Your task to perform on an android device: Open privacy settings Image 0: 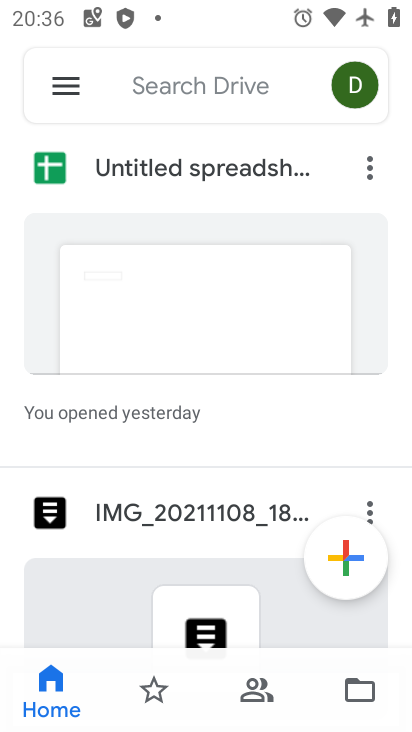
Step 0: press home button
Your task to perform on an android device: Open privacy settings Image 1: 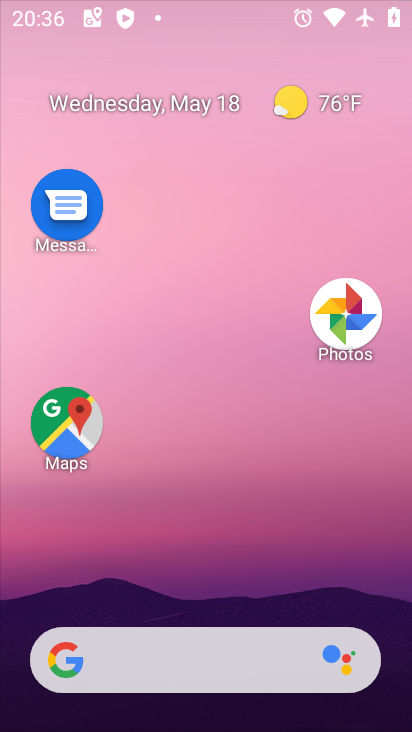
Step 1: drag from (227, 611) to (149, 39)
Your task to perform on an android device: Open privacy settings Image 2: 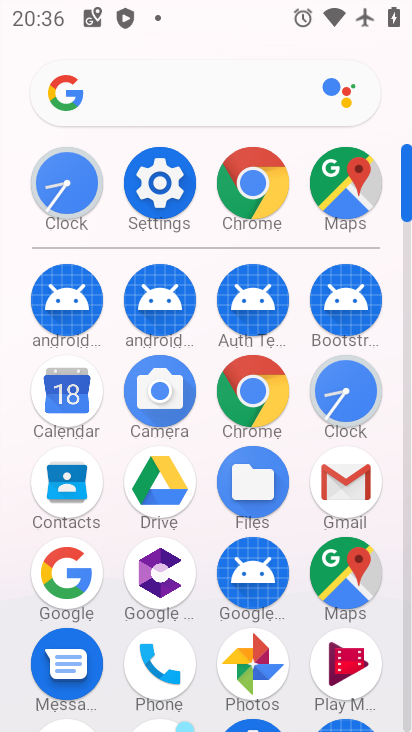
Step 2: click (165, 199)
Your task to perform on an android device: Open privacy settings Image 3: 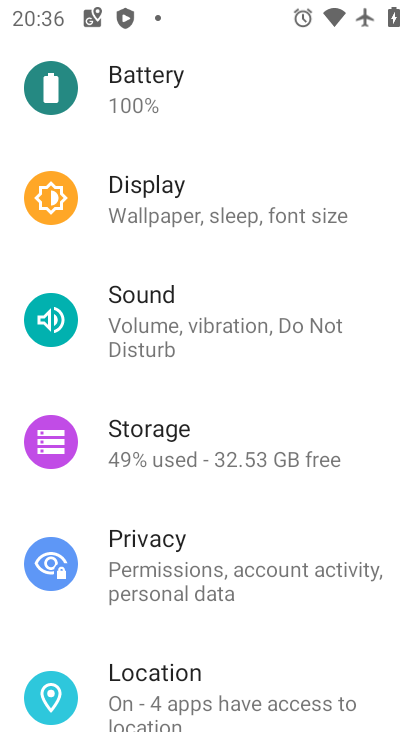
Step 3: click (181, 593)
Your task to perform on an android device: Open privacy settings Image 4: 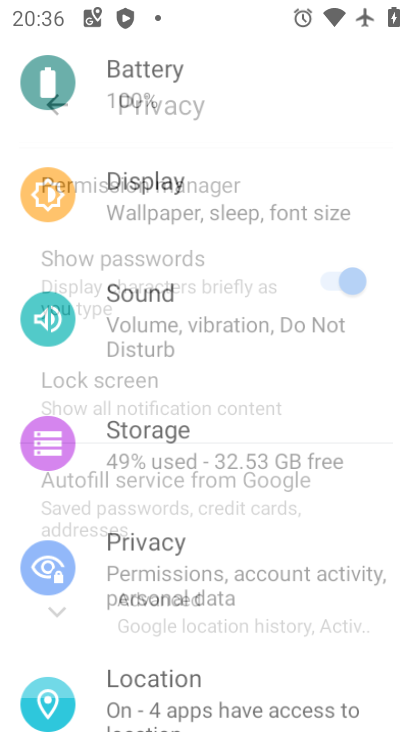
Step 4: drag from (180, 592) to (117, 102)
Your task to perform on an android device: Open privacy settings Image 5: 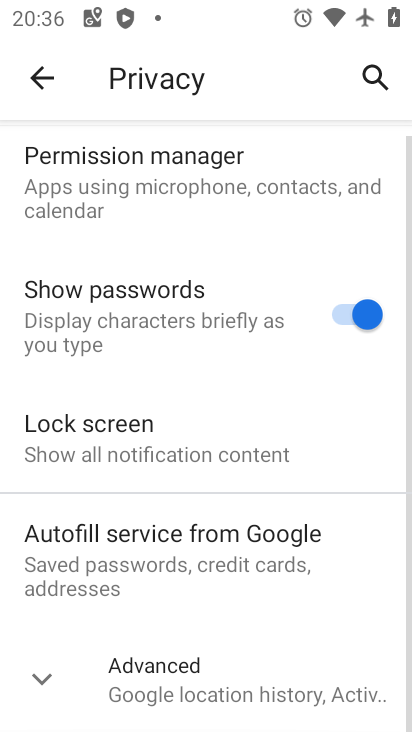
Step 5: click (186, 661)
Your task to perform on an android device: Open privacy settings Image 6: 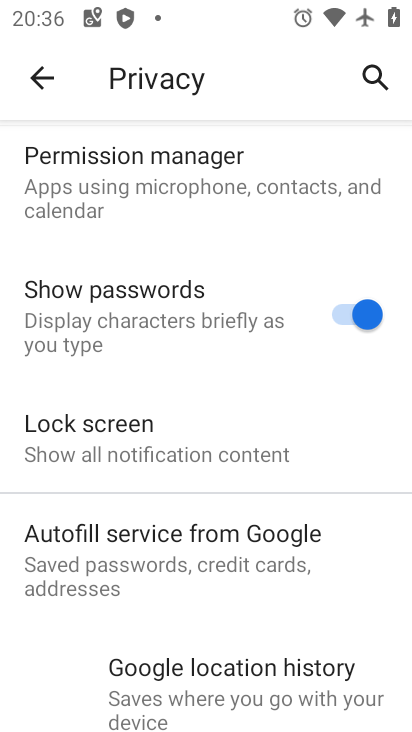
Step 6: task complete